Your task to perform on an android device: open sync settings in chrome Image 0: 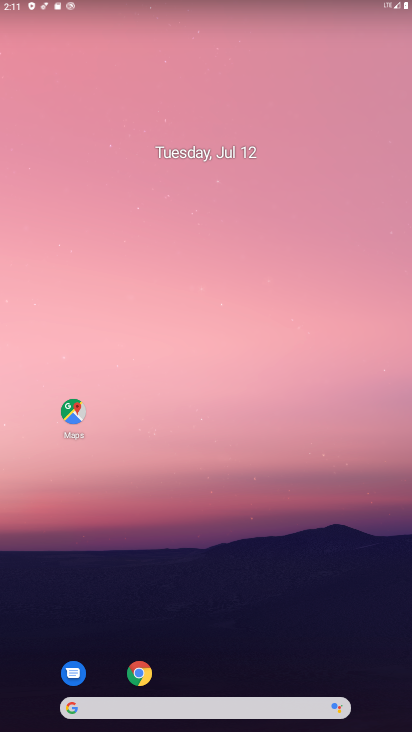
Step 0: drag from (258, 597) to (174, 160)
Your task to perform on an android device: open sync settings in chrome Image 1: 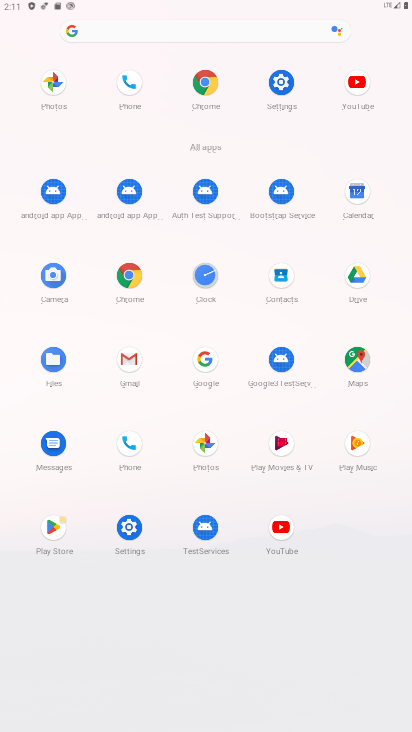
Step 1: click (129, 267)
Your task to perform on an android device: open sync settings in chrome Image 2: 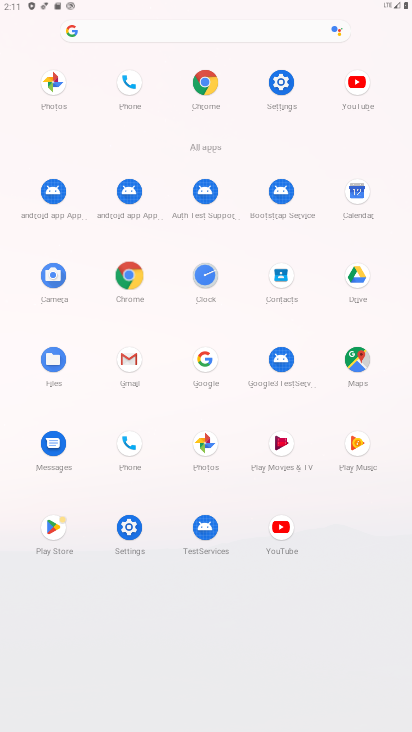
Step 2: click (129, 268)
Your task to perform on an android device: open sync settings in chrome Image 3: 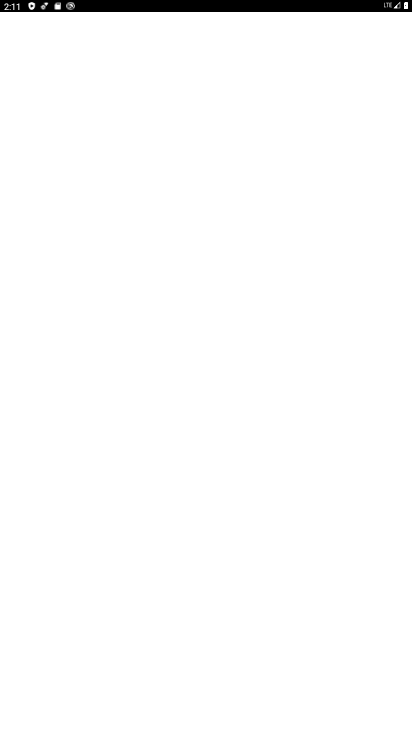
Step 3: click (130, 271)
Your task to perform on an android device: open sync settings in chrome Image 4: 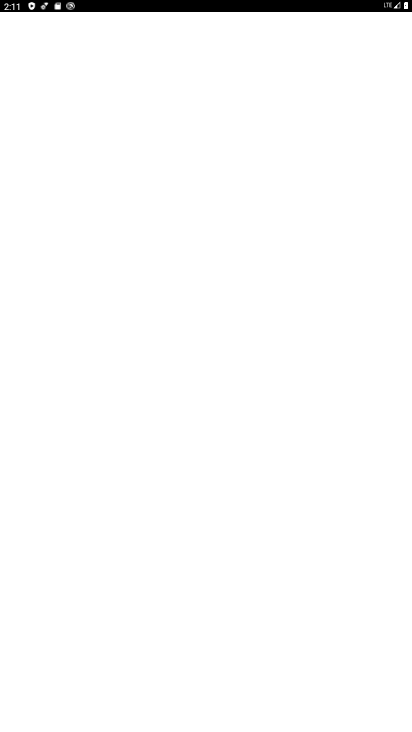
Step 4: click (130, 271)
Your task to perform on an android device: open sync settings in chrome Image 5: 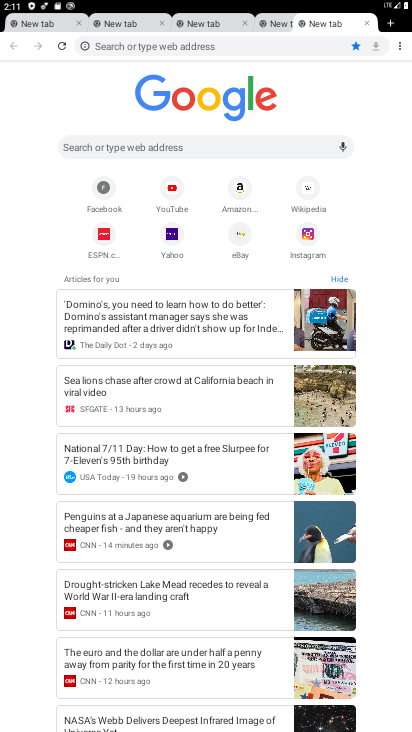
Step 5: click (398, 44)
Your task to perform on an android device: open sync settings in chrome Image 6: 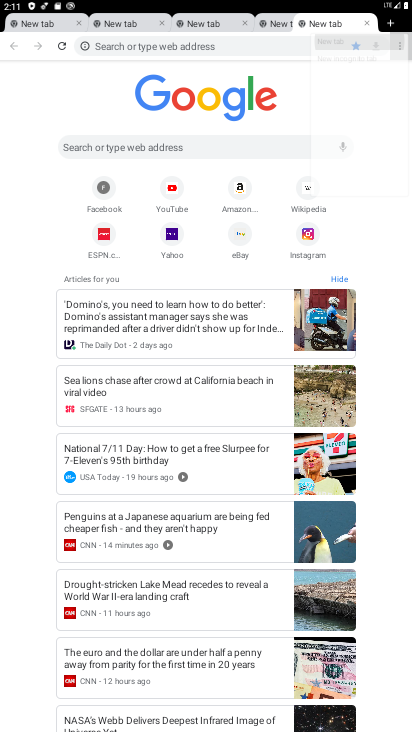
Step 6: click (398, 44)
Your task to perform on an android device: open sync settings in chrome Image 7: 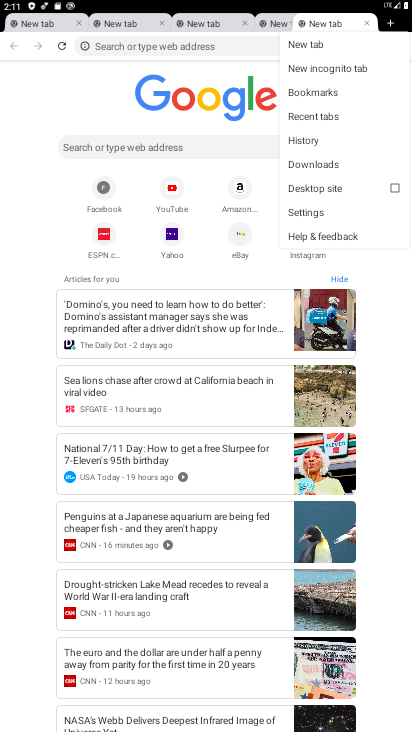
Step 7: click (295, 203)
Your task to perform on an android device: open sync settings in chrome Image 8: 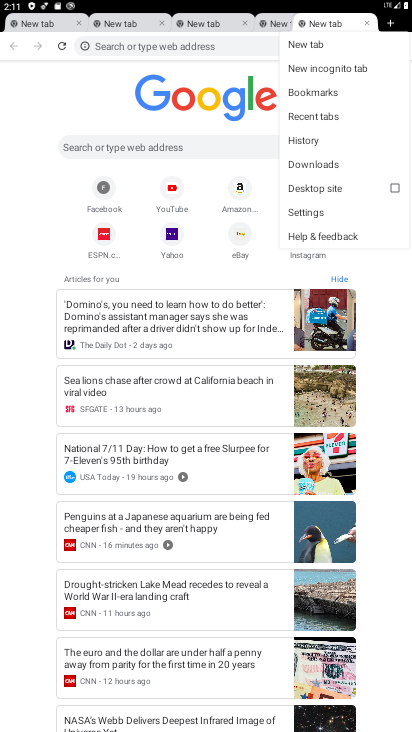
Step 8: click (298, 212)
Your task to perform on an android device: open sync settings in chrome Image 9: 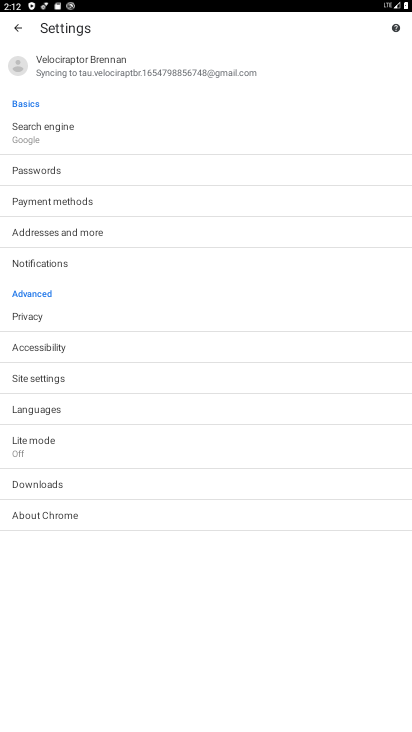
Step 9: click (27, 382)
Your task to perform on an android device: open sync settings in chrome Image 10: 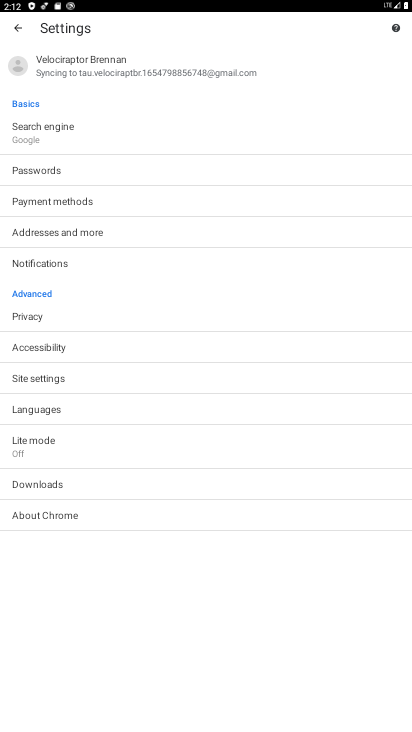
Step 10: click (28, 382)
Your task to perform on an android device: open sync settings in chrome Image 11: 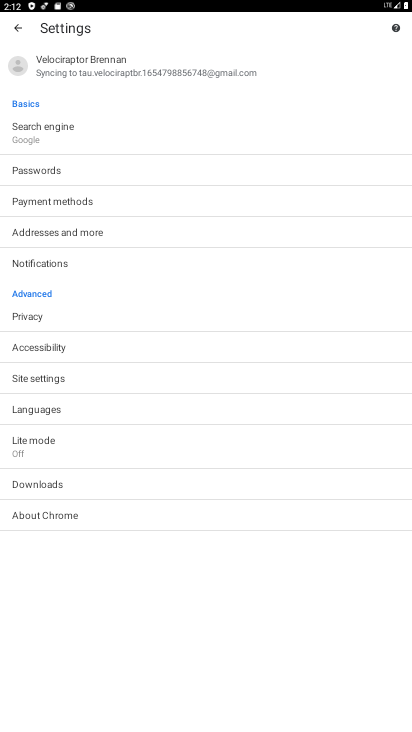
Step 11: click (32, 382)
Your task to perform on an android device: open sync settings in chrome Image 12: 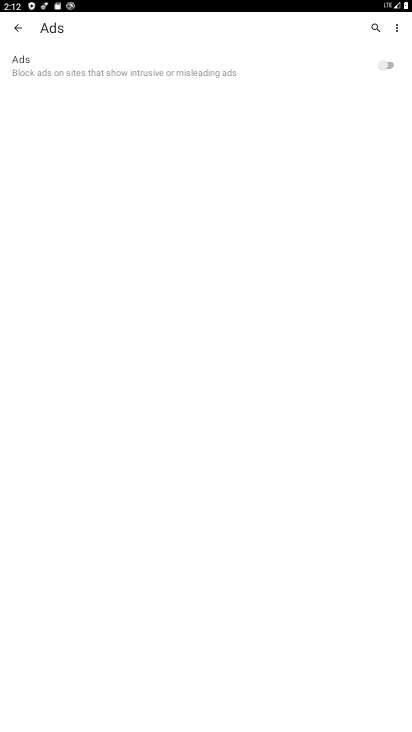
Step 12: click (16, 24)
Your task to perform on an android device: open sync settings in chrome Image 13: 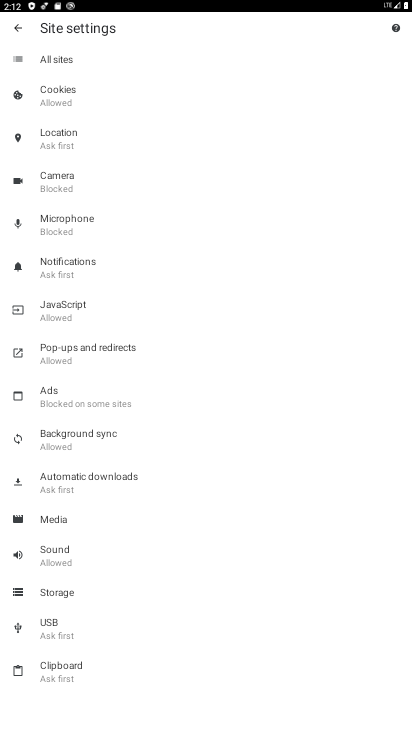
Step 13: click (53, 429)
Your task to perform on an android device: open sync settings in chrome Image 14: 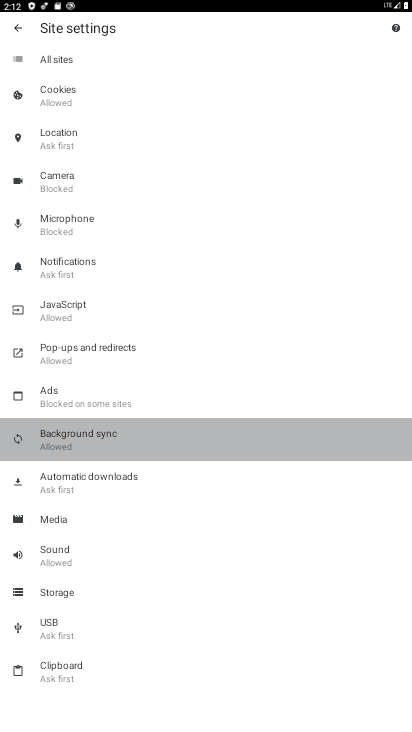
Step 14: click (55, 431)
Your task to perform on an android device: open sync settings in chrome Image 15: 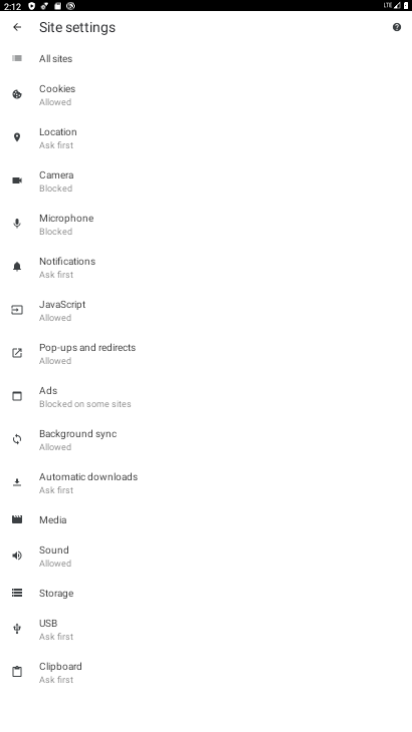
Step 15: click (56, 431)
Your task to perform on an android device: open sync settings in chrome Image 16: 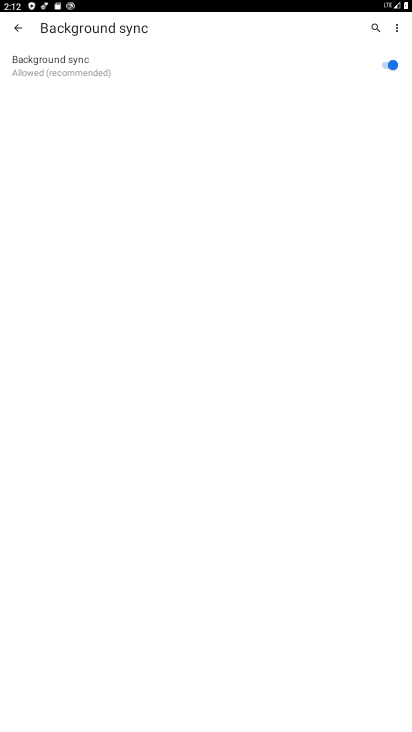
Step 16: task complete